Your task to perform on an android device: Open wifi settings Image 0: 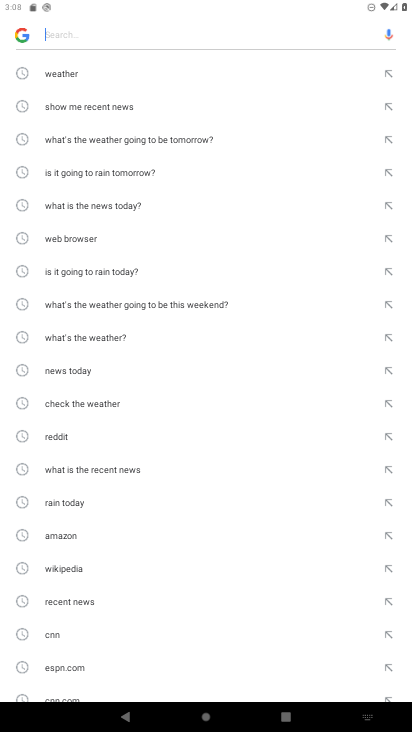
Step 0: press home button
Your task to perform on an android device: Open wifi settings Image 1: 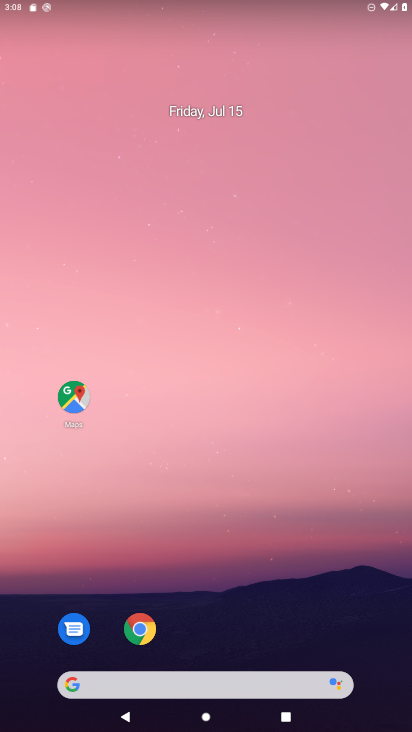
Step 1: drag from (229, 551) to (298, 21)
Your task to perform on an android device: Open wifi settings Image 2: 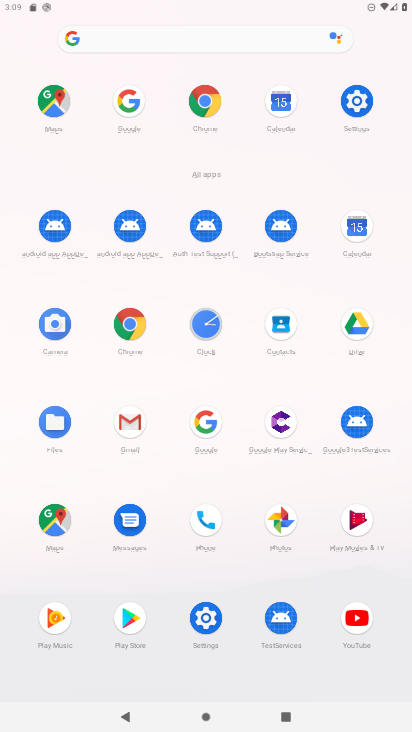
Step 2: click (352, 108)
Your task to perform on an android device: Open wifi settings Image 3: 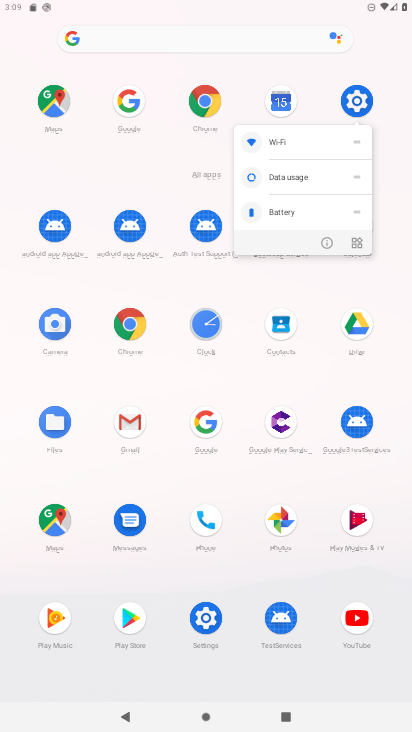
Step 3: click (355, 105)
Your task to perform on an android device: Open wifi settings Image 4: 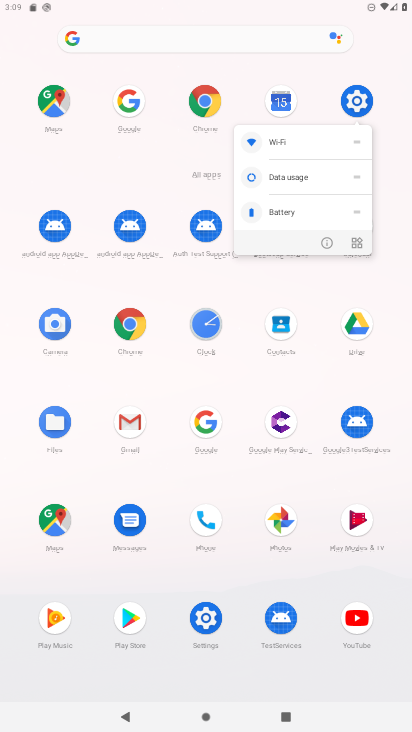
Step 4: click (355, 105)
Your task to perform on an android device: Open wifi settings Image 5: 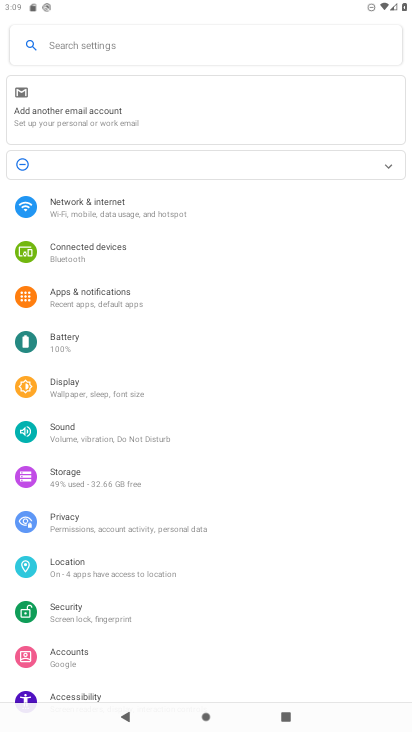
Step 5: click (115, 207)
Your task to perform on an android device: Open wifi settings Image 6: 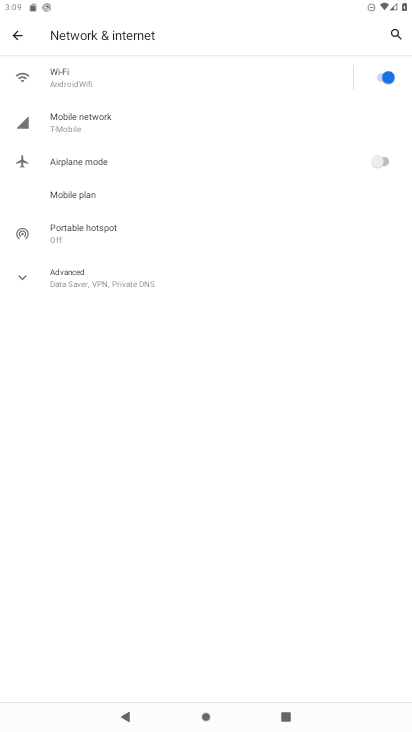
Step 6: click (87, 75)
Your task to perform on an android device: Open wifi settings Image 7: 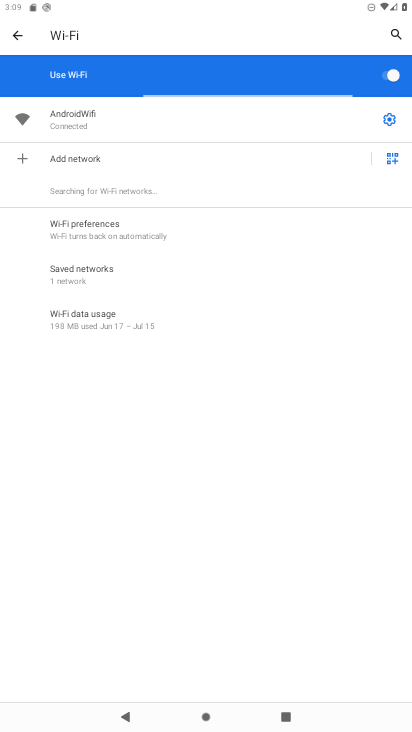
Step 7: task complete